Your task to perform on an android device: turn off location Image 0: 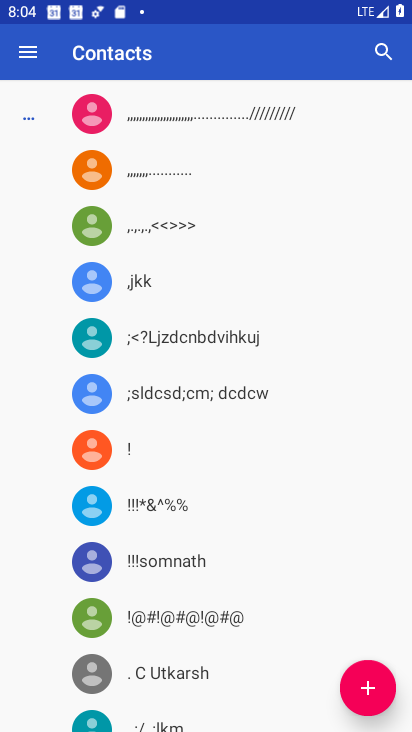
Step 0: press home button
Your task to perform on an android device: turn off location Image 1: 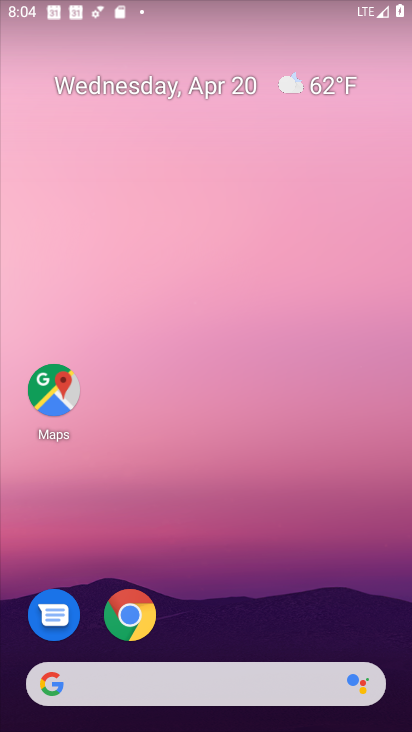
Step 1: drag from (210, 629) to (266, 178)
Your task to perform on an android device: turn off location Image 2: 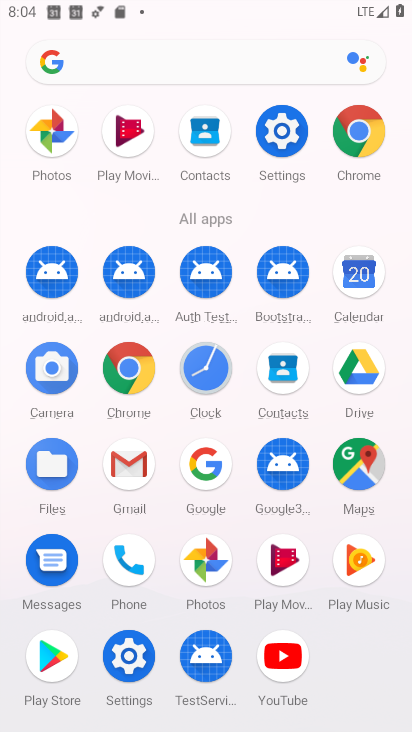
Step 2: click (285, 132)
Your task to perform on an android device: turn off location Image 3: 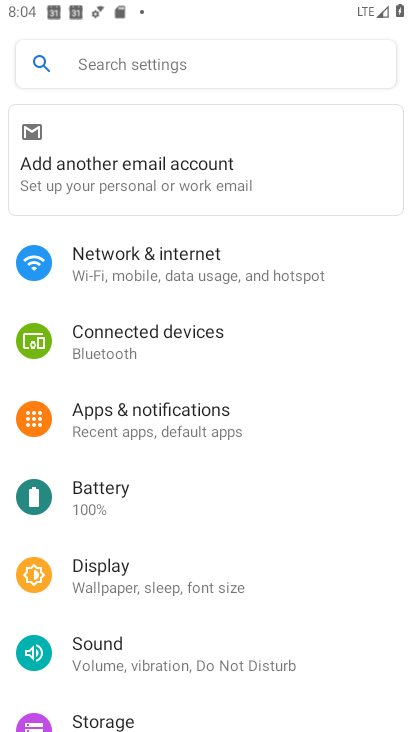
Step 3: drag from (98, 677) to (195, 190)
Your task to perform on an android device: turn off location Image 4: 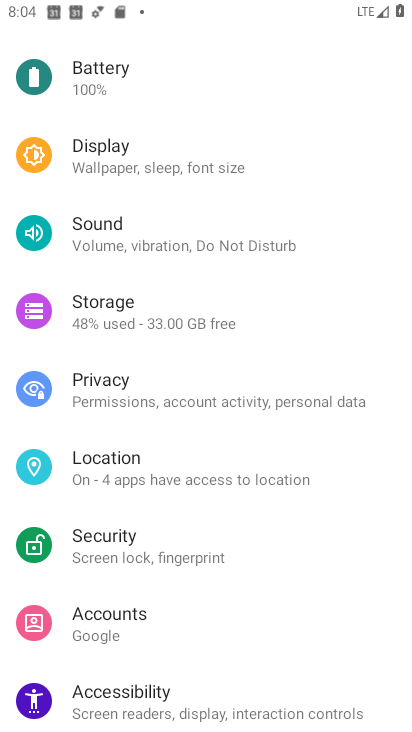
Step 4: click (132, 475)
Your task to perform on an android device: turn off location Image 5: 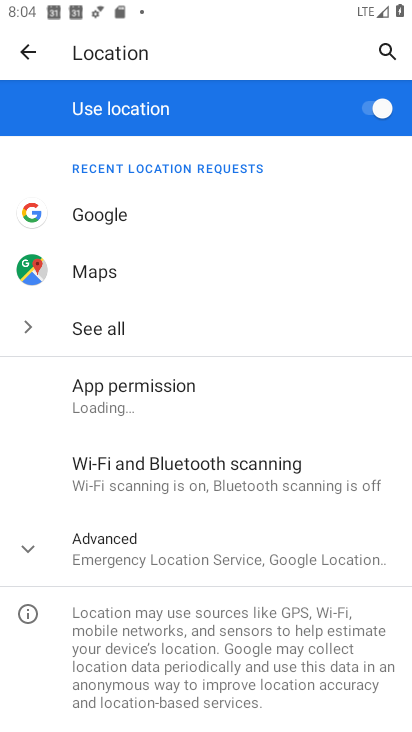
Step 5: click (370, 108)
Your task to perform on an android device: turn off location Image 6: 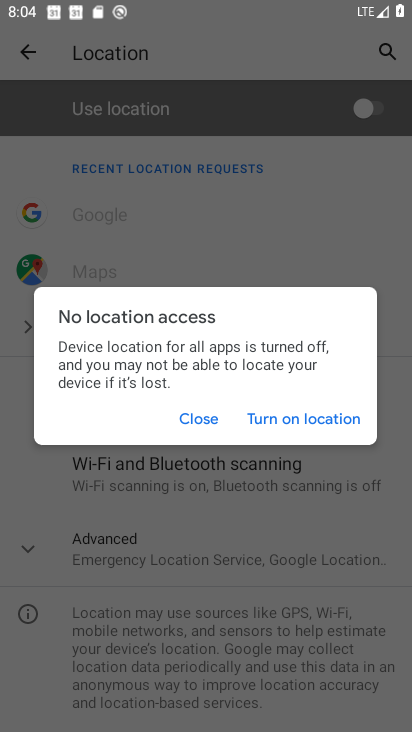
Step 6: click (184, 428)
Your task to perform on an android device: turn off location Image 7: 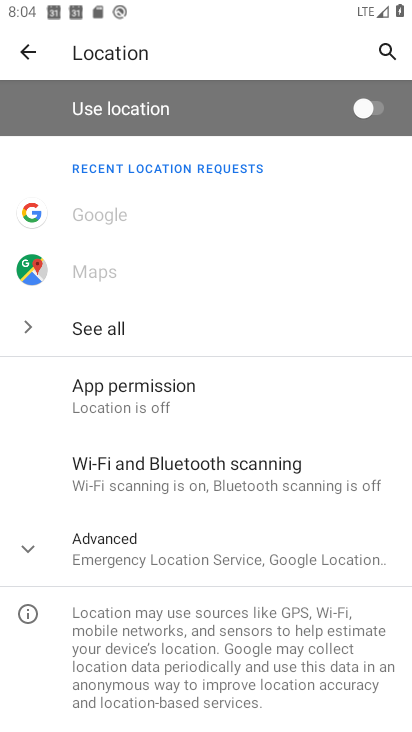
Step 7: task complete